Your task to perform on an android device: set default search engine in the chrome app Image 0: 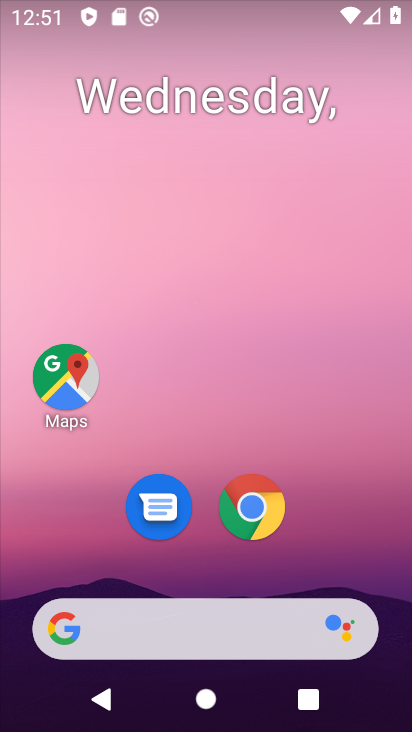
Step 0: press home button
Your task to perform on an android device: set default search engine in the chrome app Image 1: 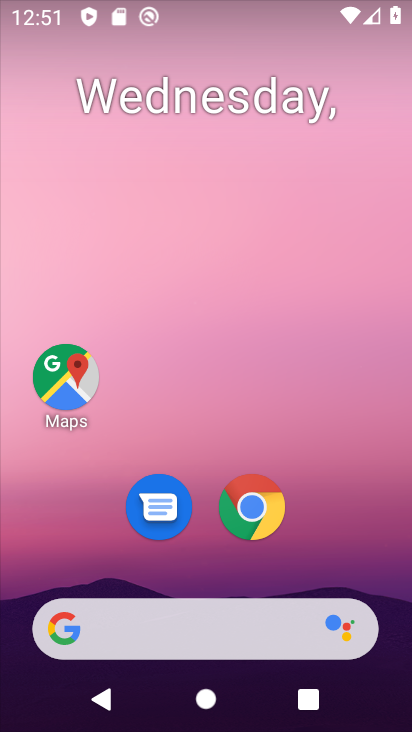
Step 1: click (247, 520)
Your task to perform on an android device: set default search engine in the chrome app Image 2: 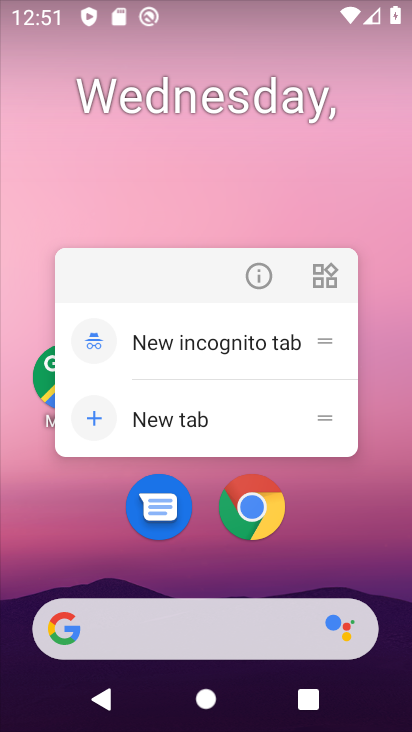
Step 2: click (253, 514)
Your task to perform on an android device: set default search engine in the chrome app Image 3: 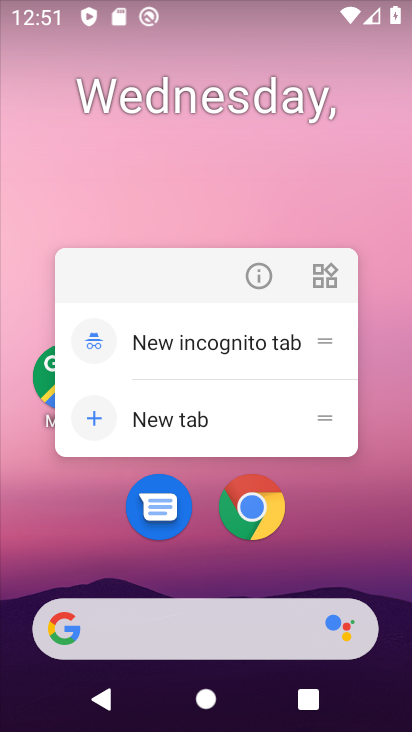
Step 3: click (253, 514)
Your task to perform on an android device: set default search engine in the chrome app Image 4: 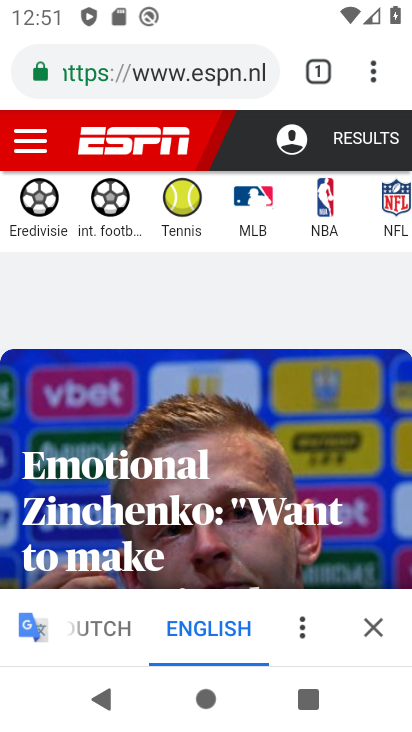
Step 4: drag from (373, 64) to (221, 503)
Your task to perform on an android device: set default search engine in the chrome app Image 5: 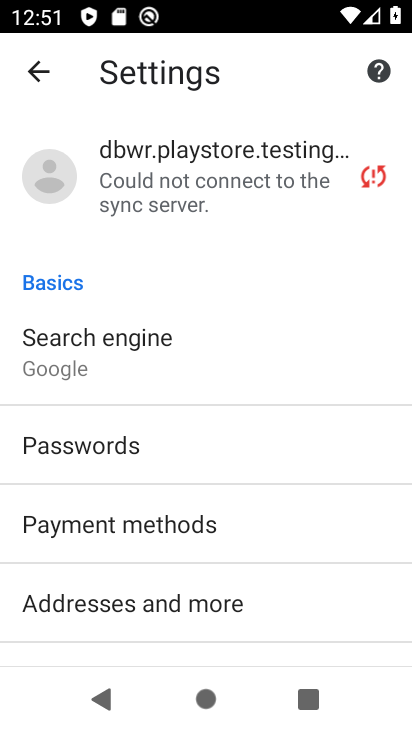
Step 5: click (134, 353)
Your task to perform on an android device: set default search engine in the chrome app Image 6: 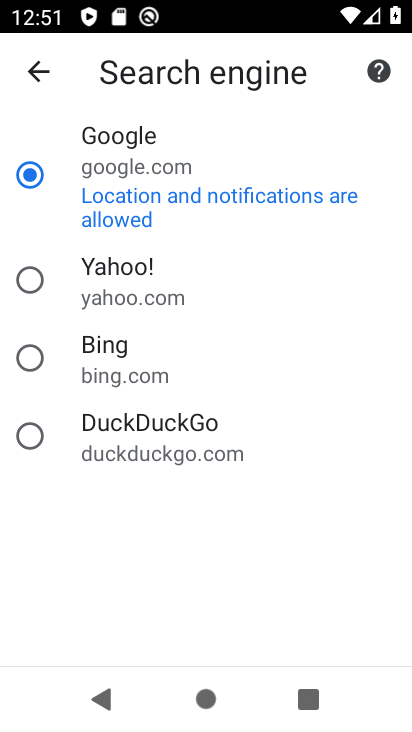
Step 6: click (24, 283)
Your task to perform on an android device: set default search engine in the chrome app Image 7: 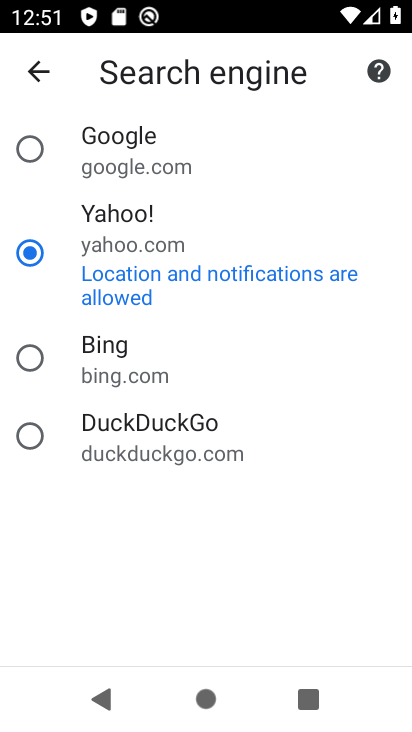
Step 7: task complete